Your task to perform on an android device: set the timer Image 0: 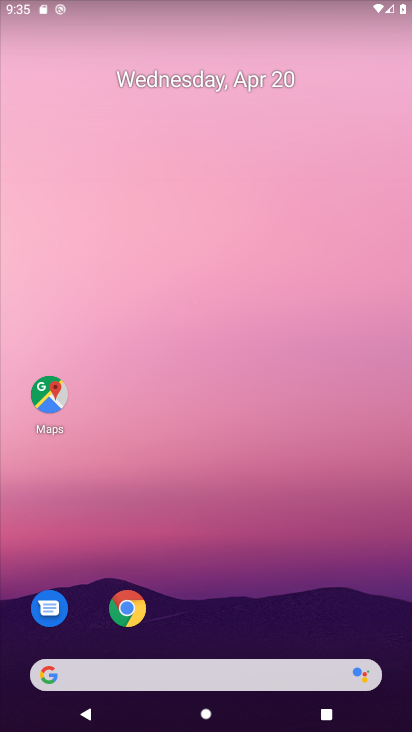
Step 0: drag from (233, 516) to (233, 157)
Your task to perform on an android device: set the timer Image 1: 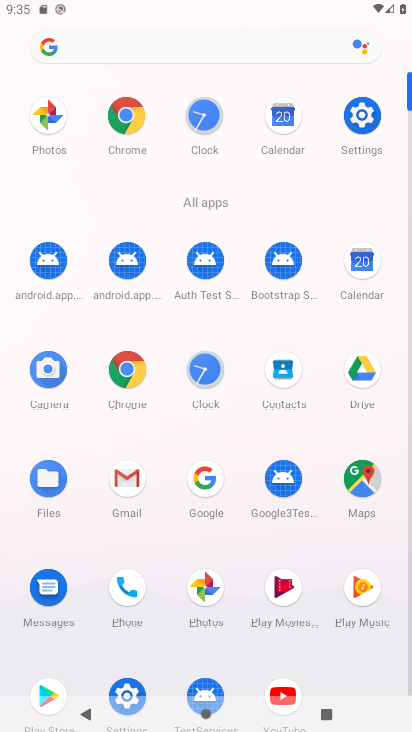
Step 1: click (209, 388)
Your task to perform on an android device: set the timer Image 2: 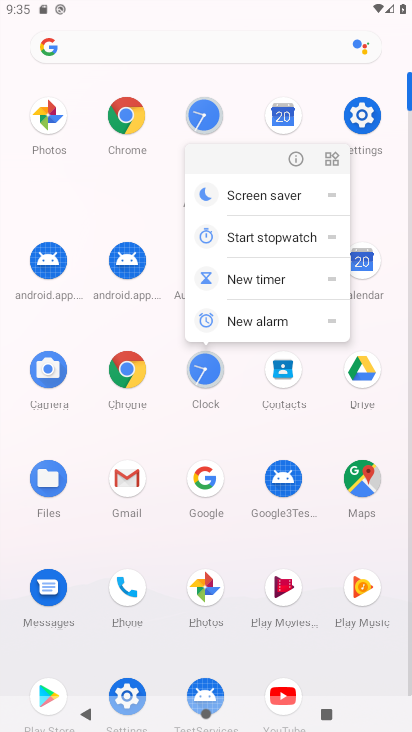
Step 2: click (291, 160)
Your task to perform on an android device: set the timer Image 3: 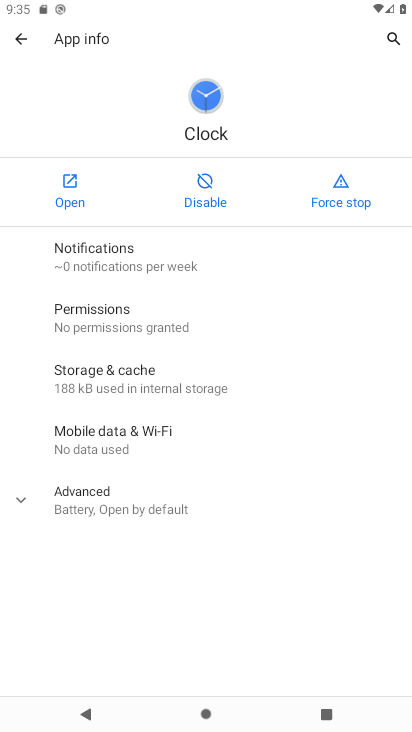
Step 3: click (83, 198)
Your task to perform on an android device: set the timer Image 4: 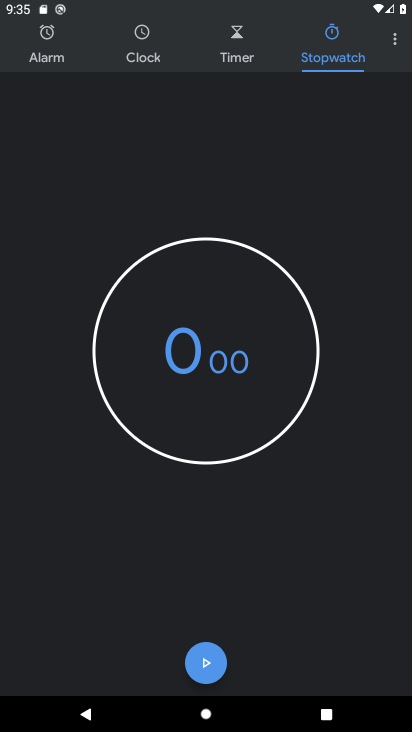
Step 4: click (215, 56)
Your task to perform on an android device: set the timer Image 5: 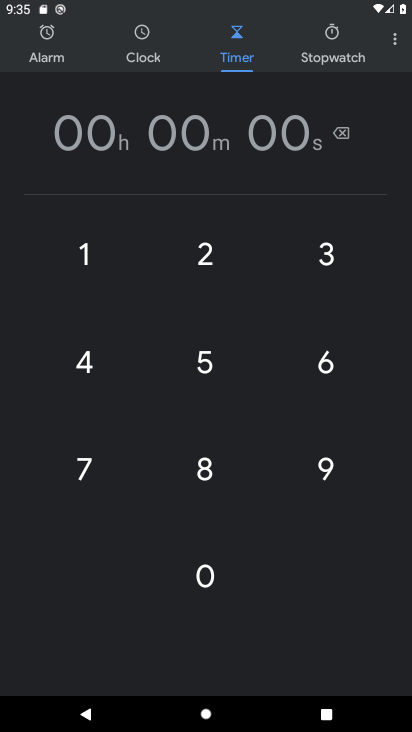
Step 5: click (202, 349)
Your task to perform on an android device: set the timer Image 6: 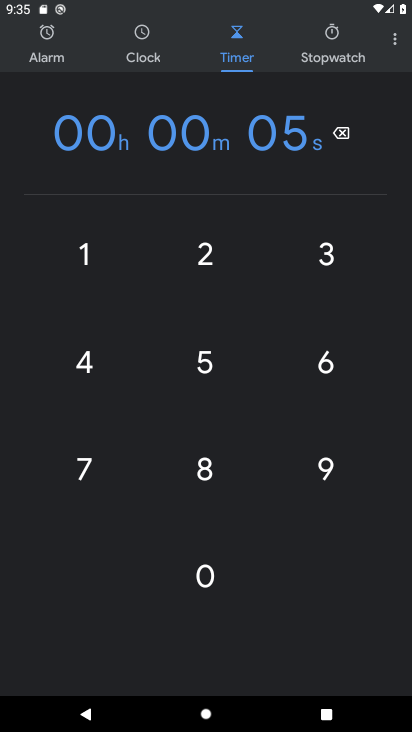
Step 6: click (311, 364)
Your task to perform on an android device: set the timer Image 7: 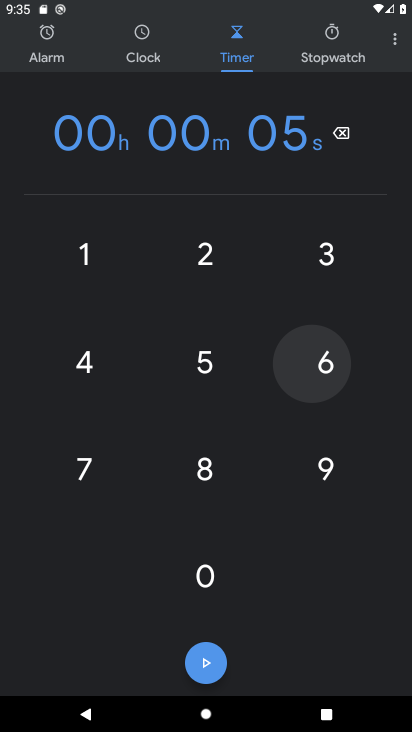
Step 7: click (304, 265)
Your task to perform on an android device: set the timer Image 8: 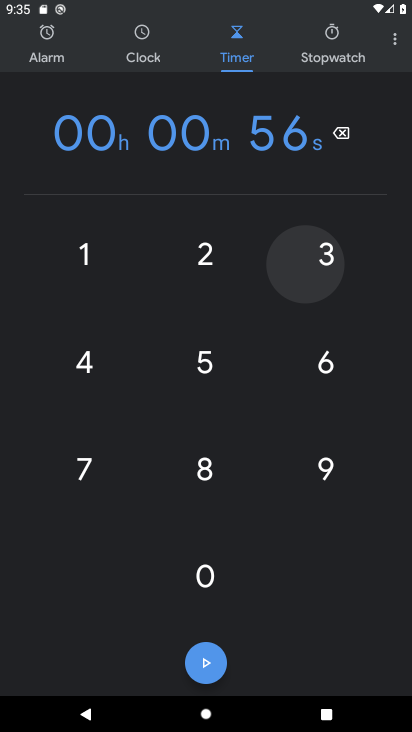
Step 8: click (196, 246)
Your task to perform on an android device: set the timer Image 9: 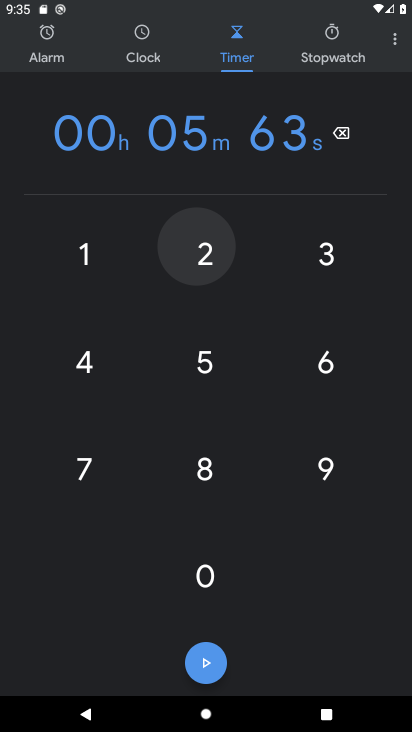
Step 9: click (93, 257)
Your task to perform on an android device: set the timer Image 10: 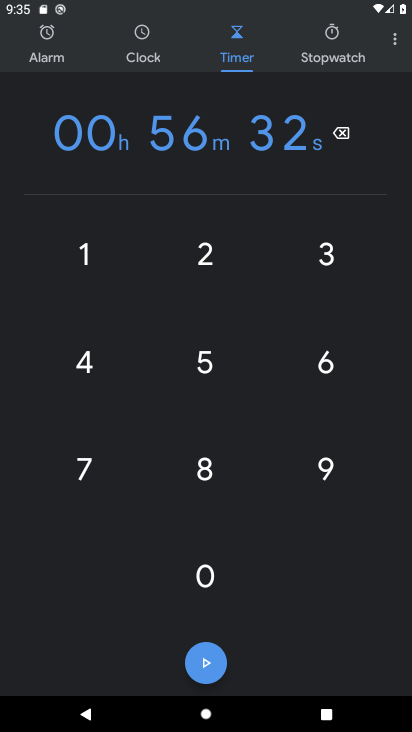
Step 10: click (88, 394)
Your task to perform on an android device: set the timer Image 11: 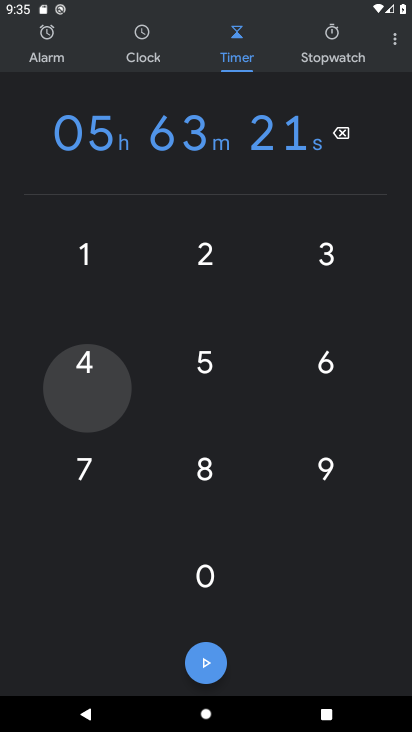
Step 11: click (81, 455)
Your task to perform on an android device: set the timer Image 12: 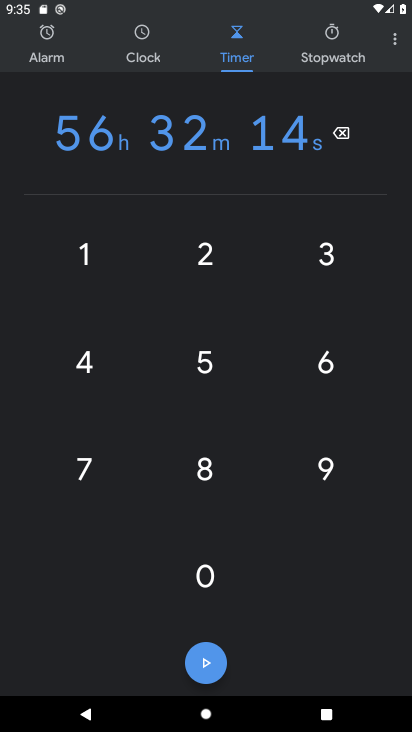
Step 12: click (207, 666)
Your task to perform on an android device: set the timer Image 13: 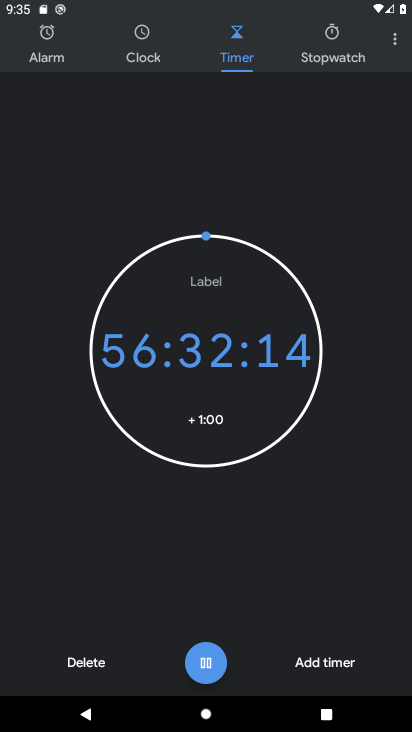
Step 13: task complete